Your task to perform on an android device: Open Chrome and go to settings Image 0: 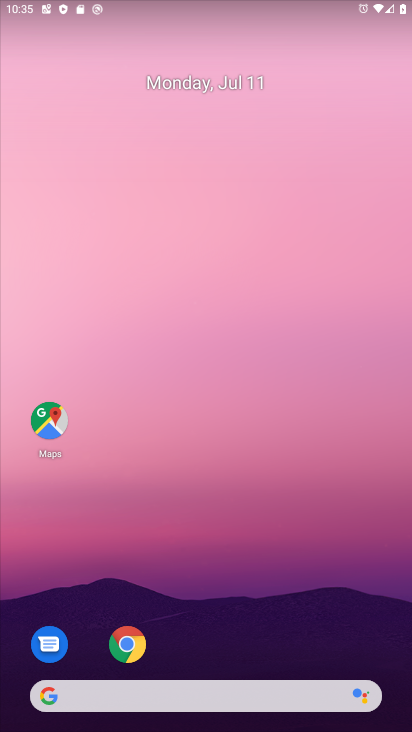
Step 0: drag from (230, 658) to (278, 133)
Your task to perform on an android device: Open Chrome and go to settings Image 1: 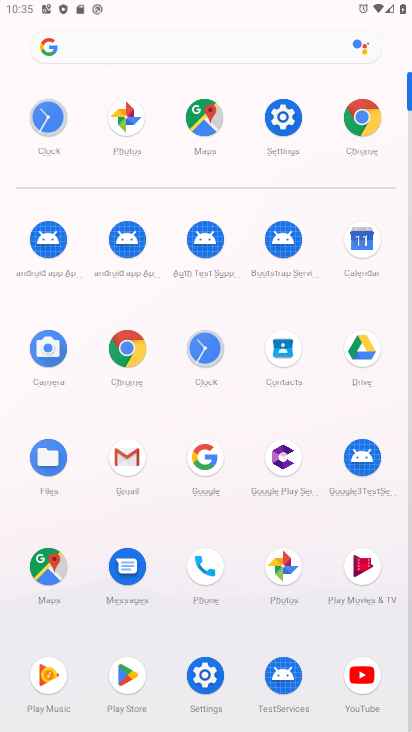
Step 1: click (364, 110)
Your task to perform on an android device: Open Chrome and go to settings Image 2: 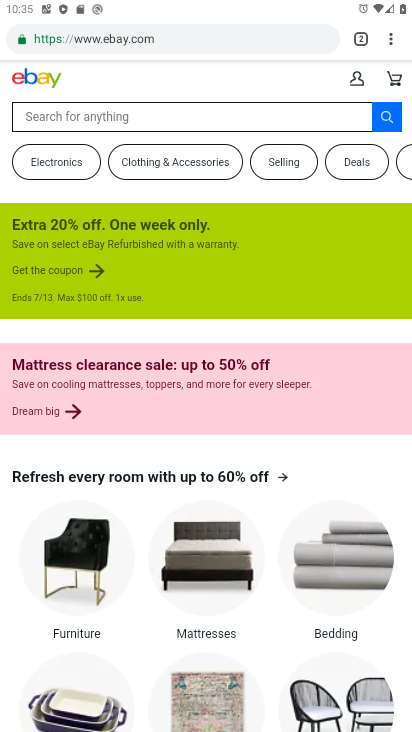
Step 2: click (386, 35)
Your task to perform on an android device: Open Chrome and go to settings Image 3: 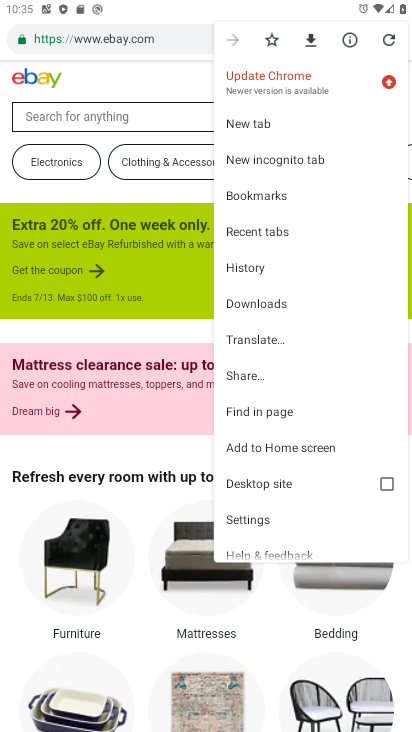
Step 3: click (282, 516)
Your task to perform on an android device: Open Chrome and go to settings Image 4: 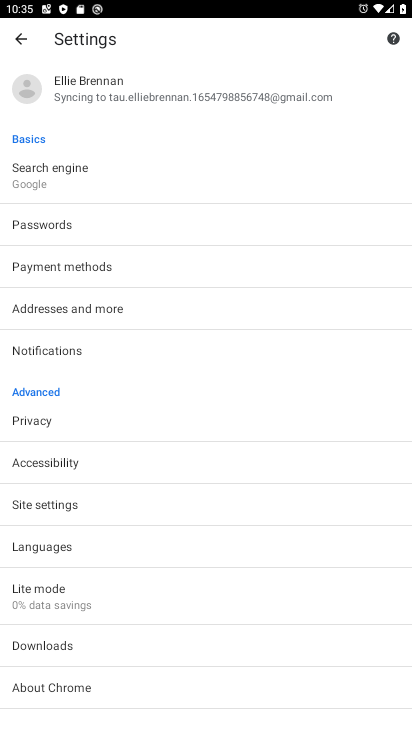
Step 4: task complete